Your task to perform on an android device: Play the new Ed Sheeran video on YouTube Image 0: 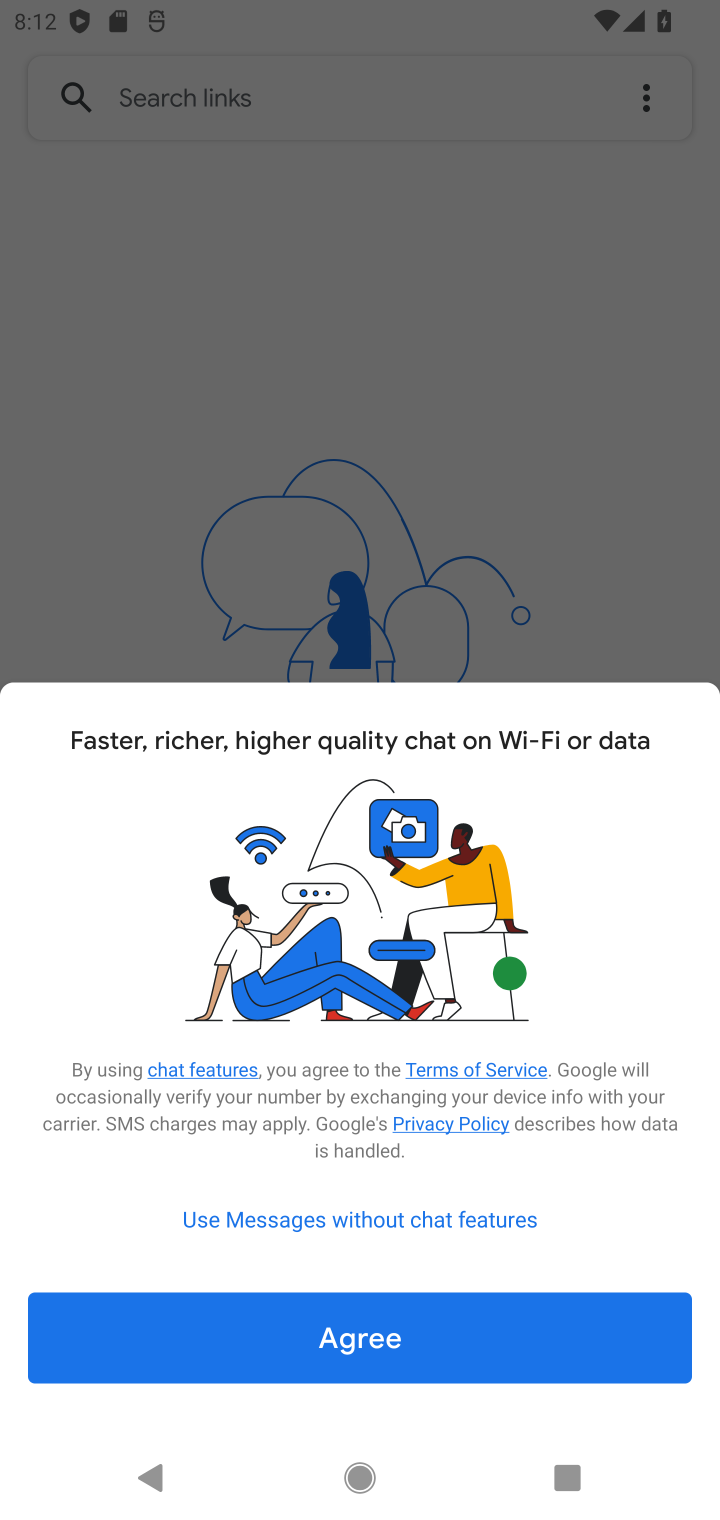
Step 0: press home button
Your task to perform on an android device: Play the new Ed Sheeran video on YouTube Image 1: 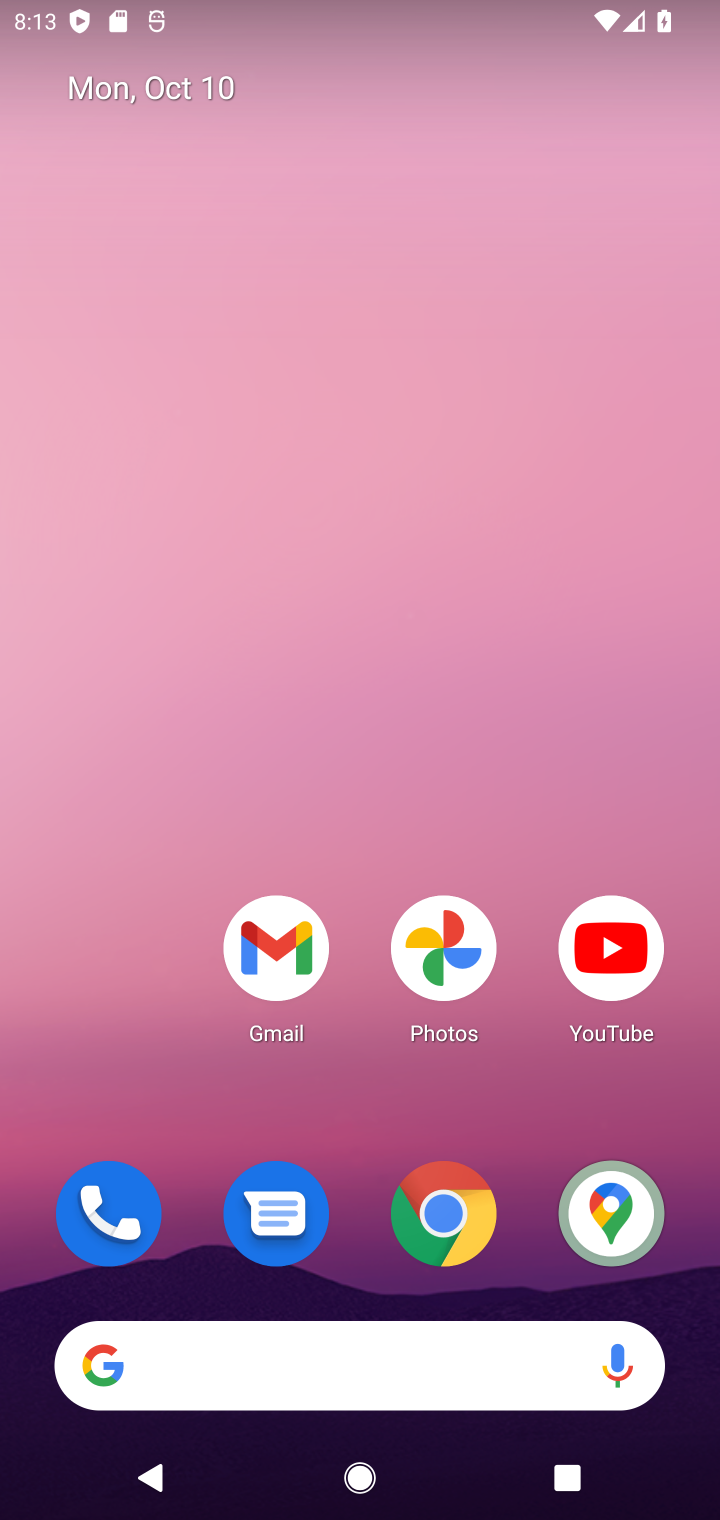
Step 1: click (629, 970)
Your task to perform on an android device: Play the new Ed Sheeran video on YouTube Image 2: 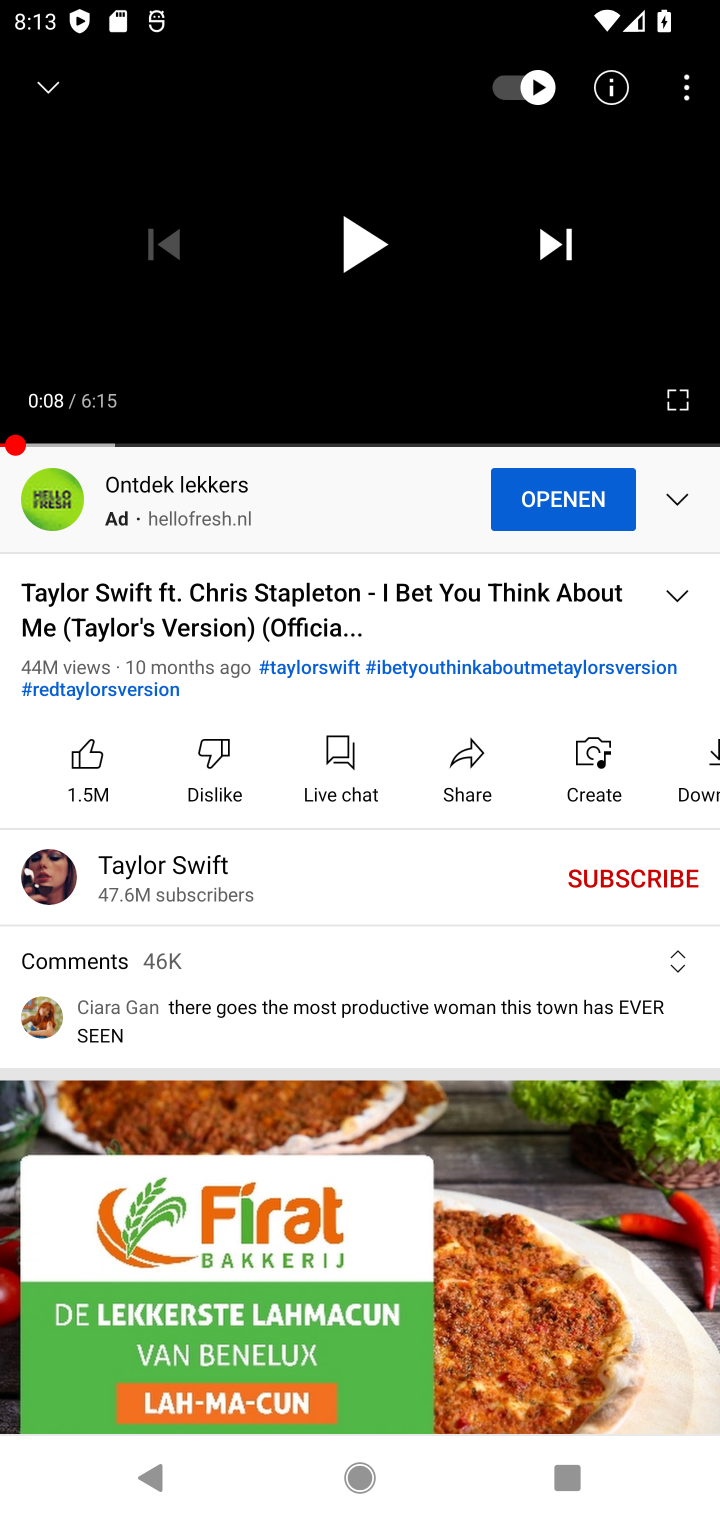
Step 2: click (27, 93)
Your task to perform on an android device: Play the new Ed Sheeran video on YouTube Image 3: 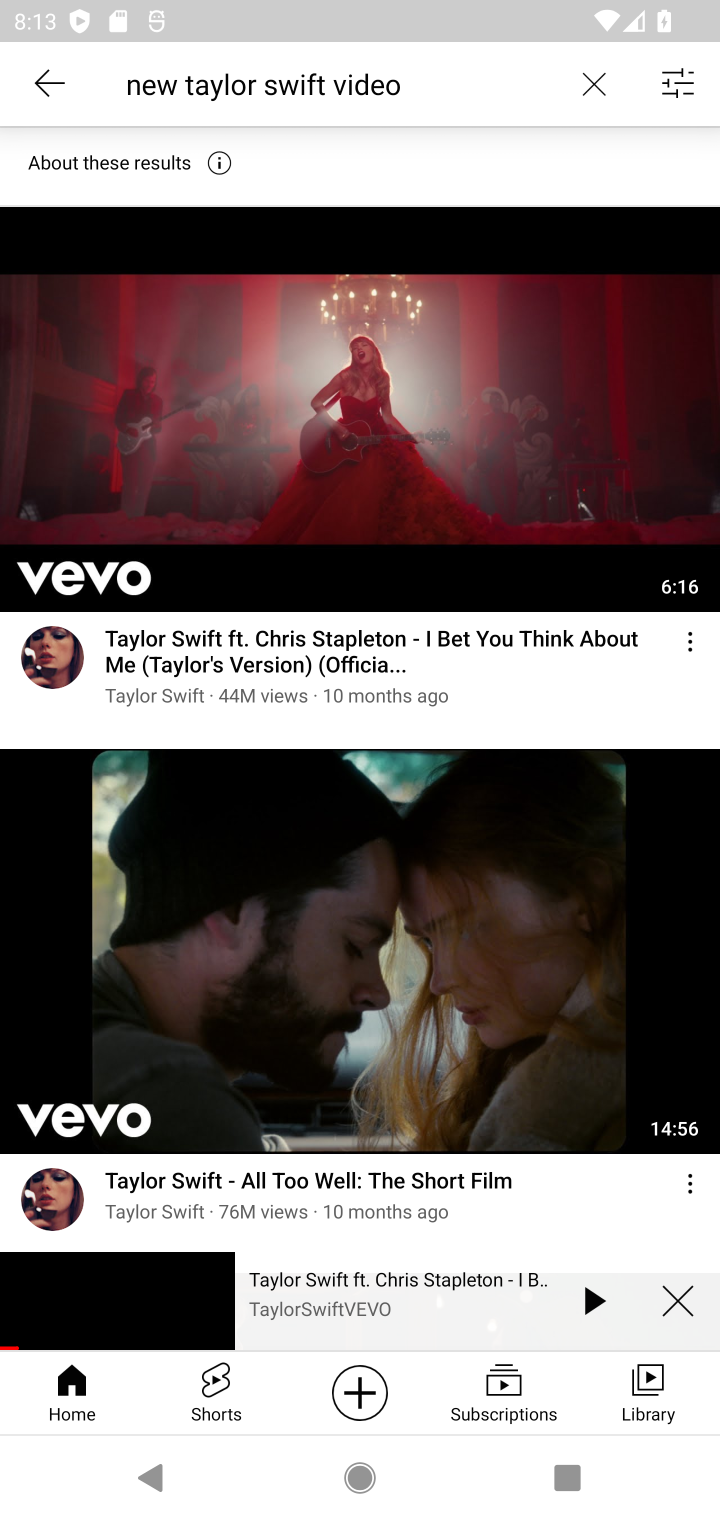
Step 3: click (578, 71)
Your task to perform on an android device: Play the new Ed Sheeran video on YouTube Image 4: 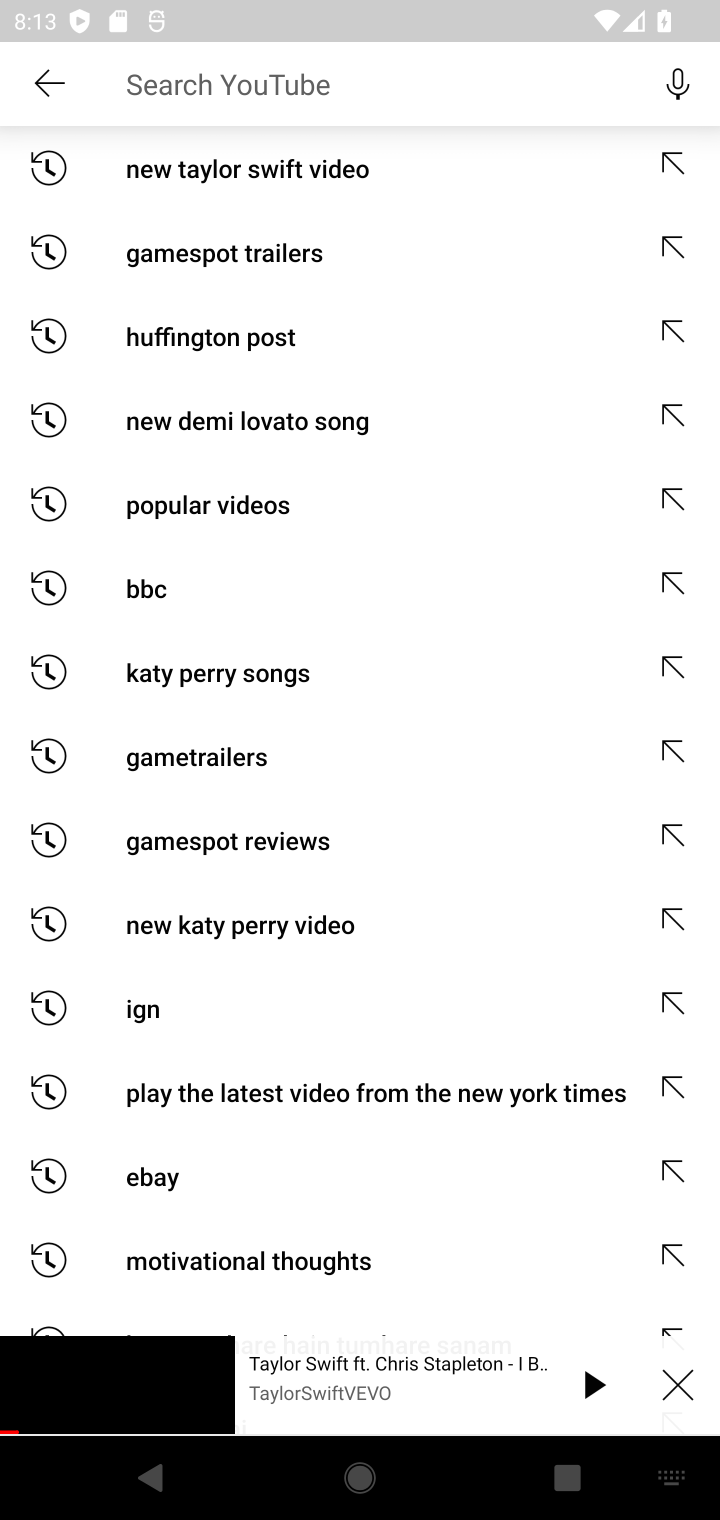
Step 4: click (164, 86)
Your task to perform on an android device: Play the new Ed Sheeran video on YouTube Image 5: 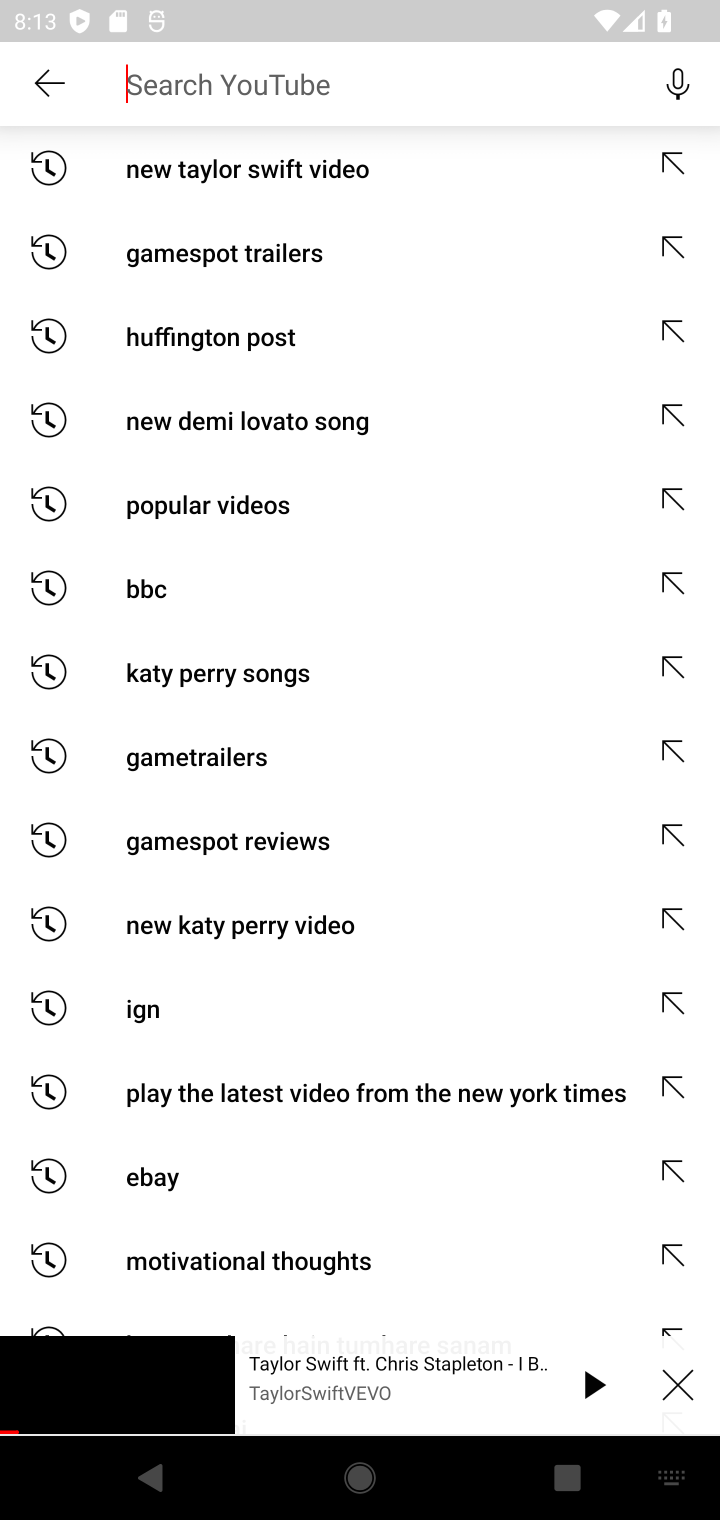
Step 5: type "new Ed Sheeran video"
Your task to perform on an android device: Play the new Ed Sheeran video on YouTube Image 6: 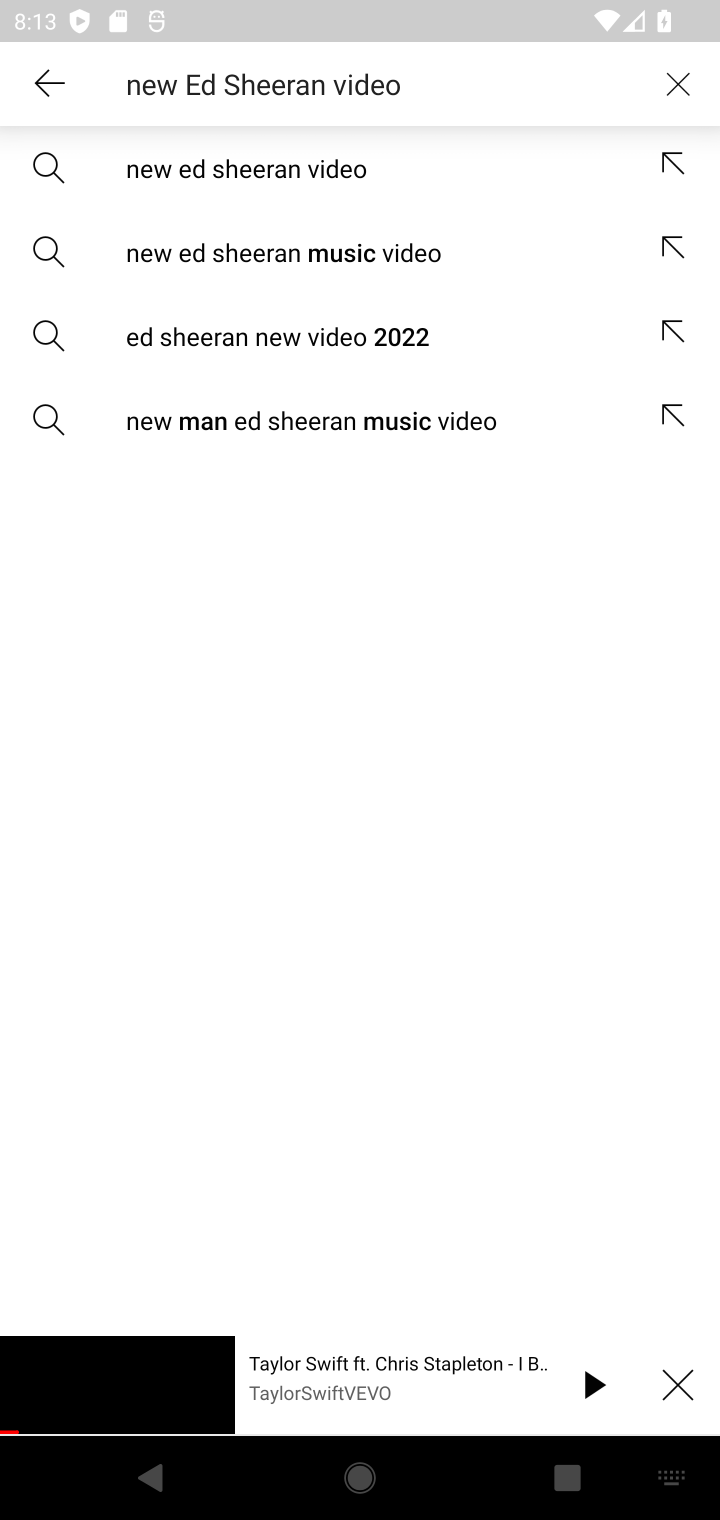
Step 6: click (323, 253)
Your task to perform on an android device: Play the new Ed Sheeran video on YouTube Image 7: 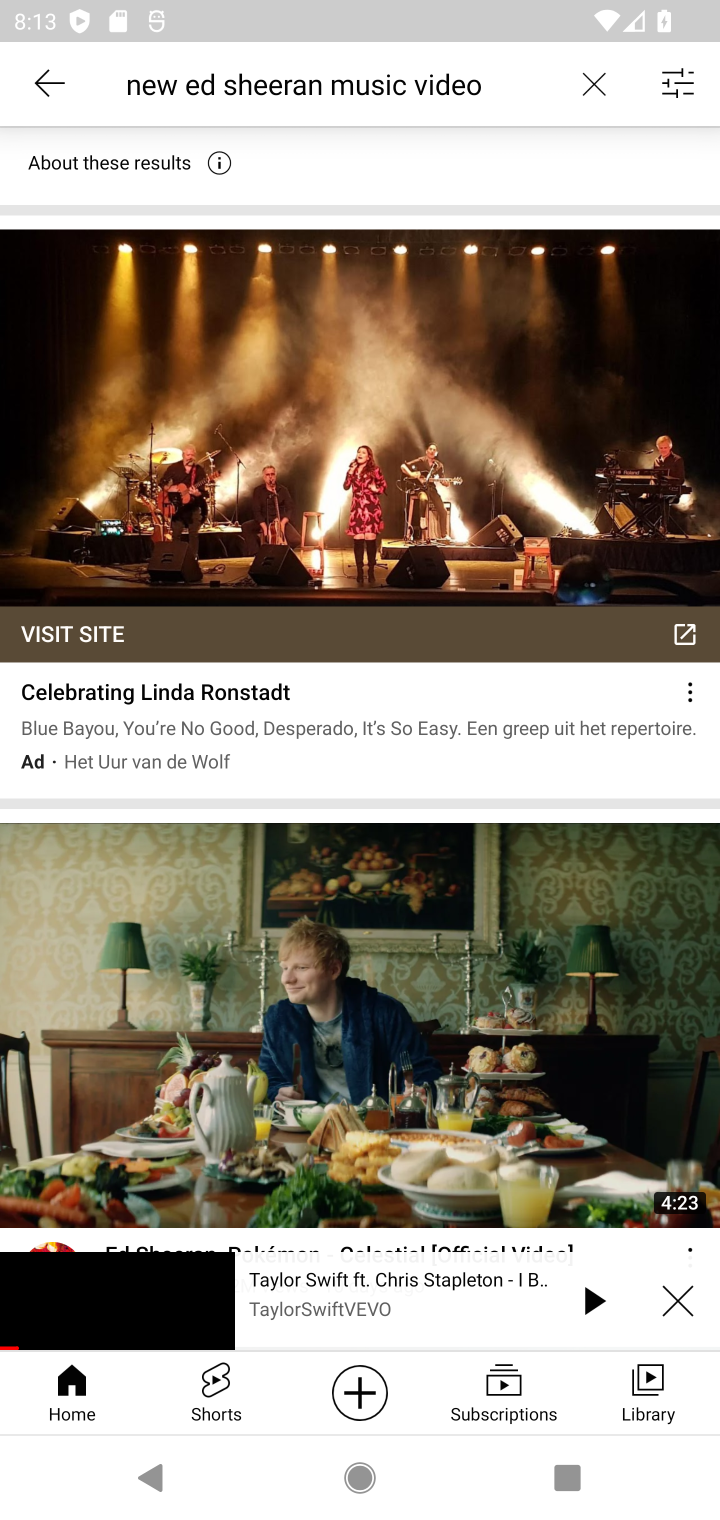
Step 7: drag from (455, 1160) to (594, 318)
Your task to perform on an android device: Play the new Ed Sheeran video on YouTube Image 8: 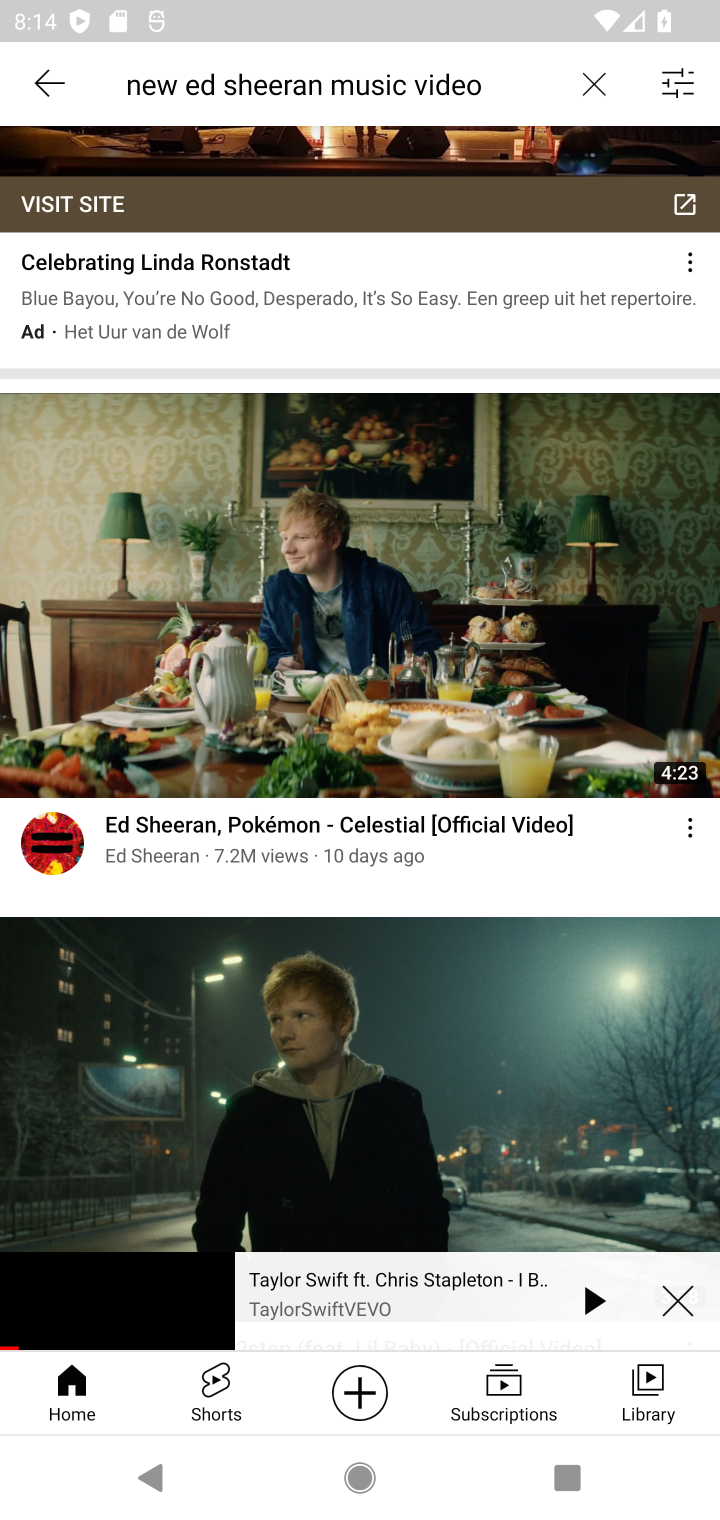
Step 8: click (372, 556)
Your task to perform on an android device: Play the new Ed Sheeran video on YouTube Image 9: 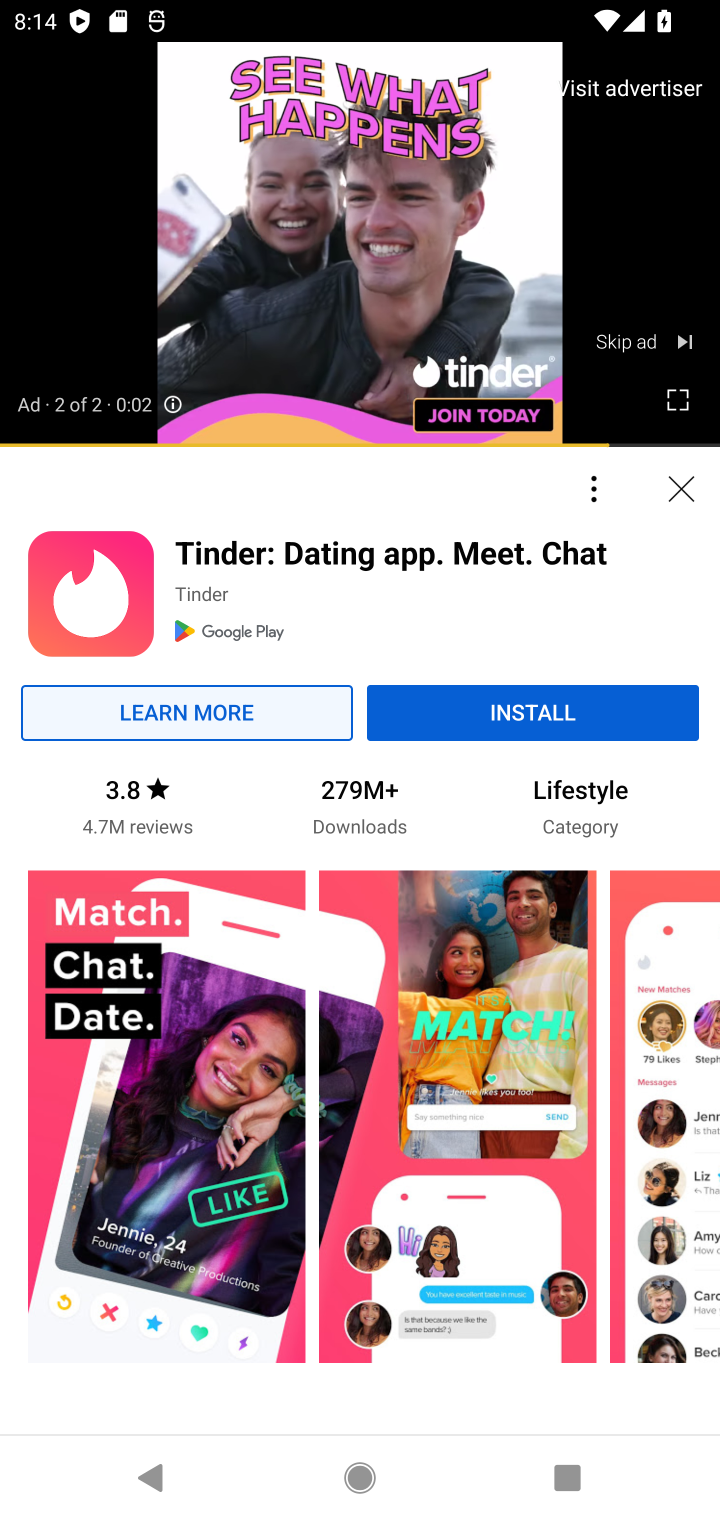
Step 9: click (627, 326)
Your task to perform on an android device: Play the new Ed Sheeran video on YouTube Image 10: 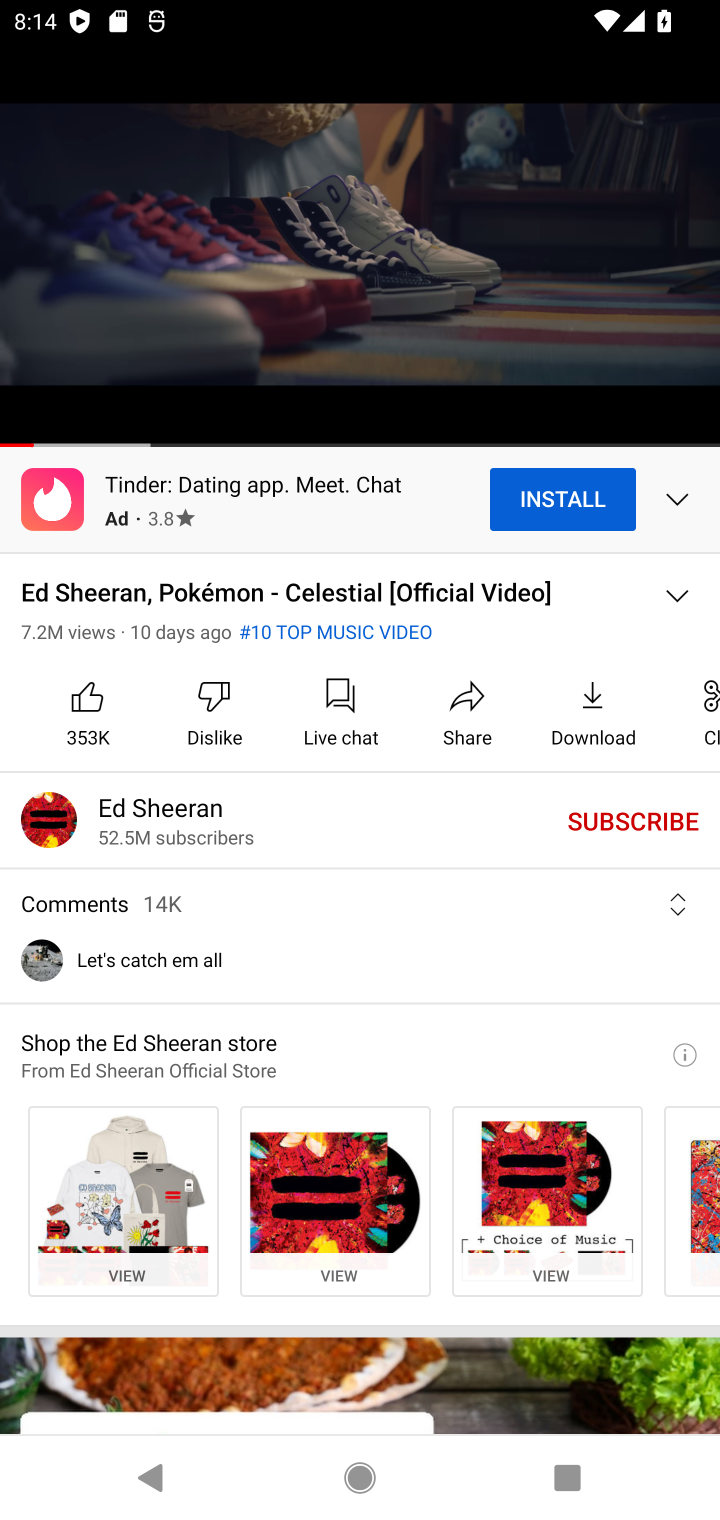
Step 10: click (322, 270)
Your task to perform on an android device: Play the new Ed Sheeran video on YouTube Image 11: 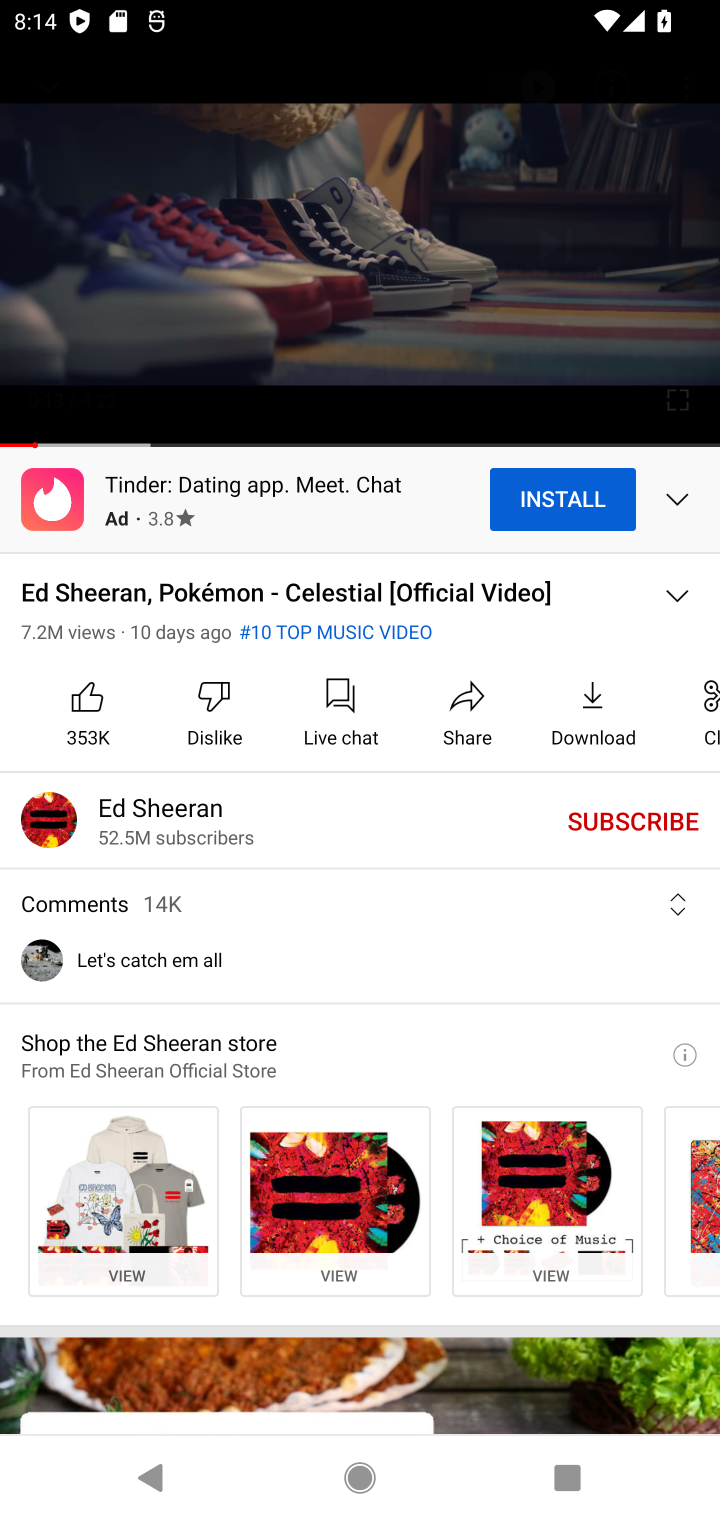
Step 11: task complete